Your task to perform on an android device: open app "Microsoft Excel" Image 0: 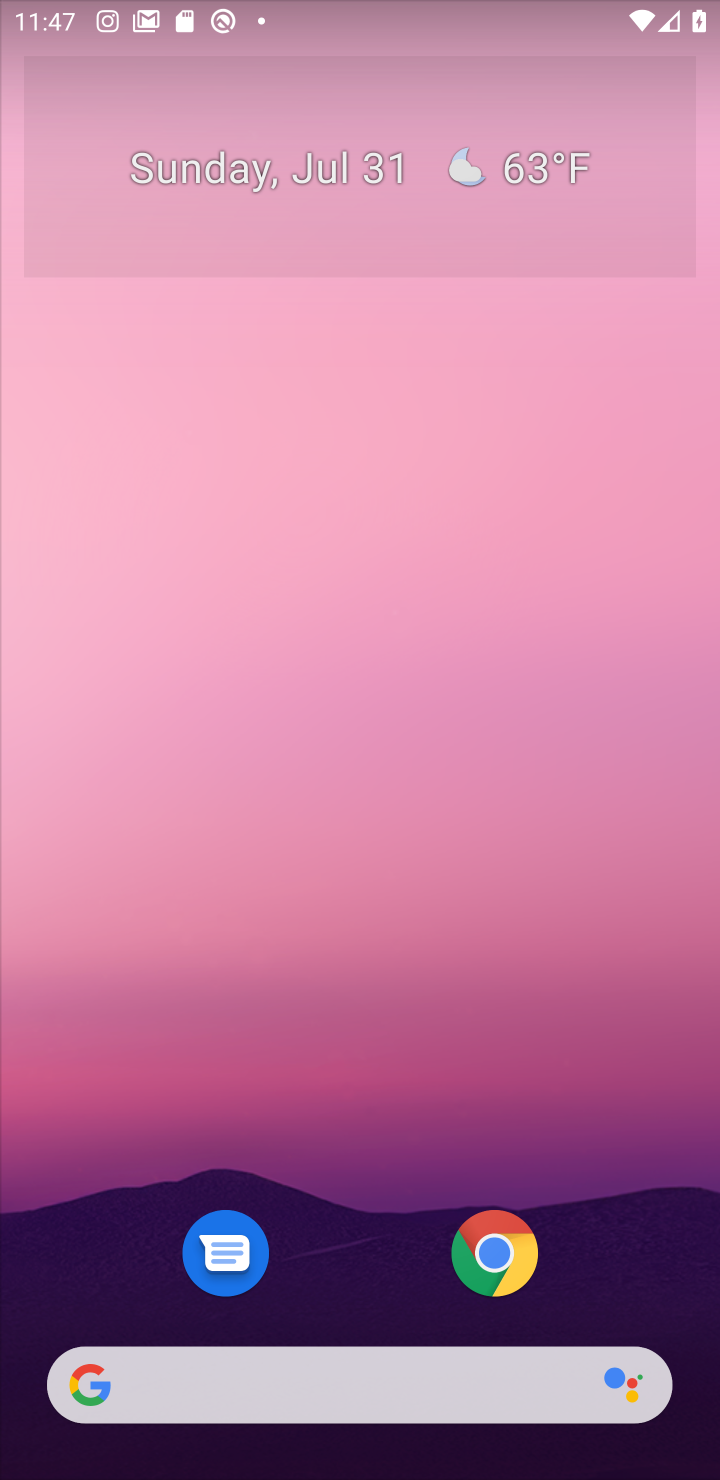
Step 0: drag from (370, 1274) to (444, 252)
Your task to perform on an android device: open app "Microsoft Excel" Image 1: 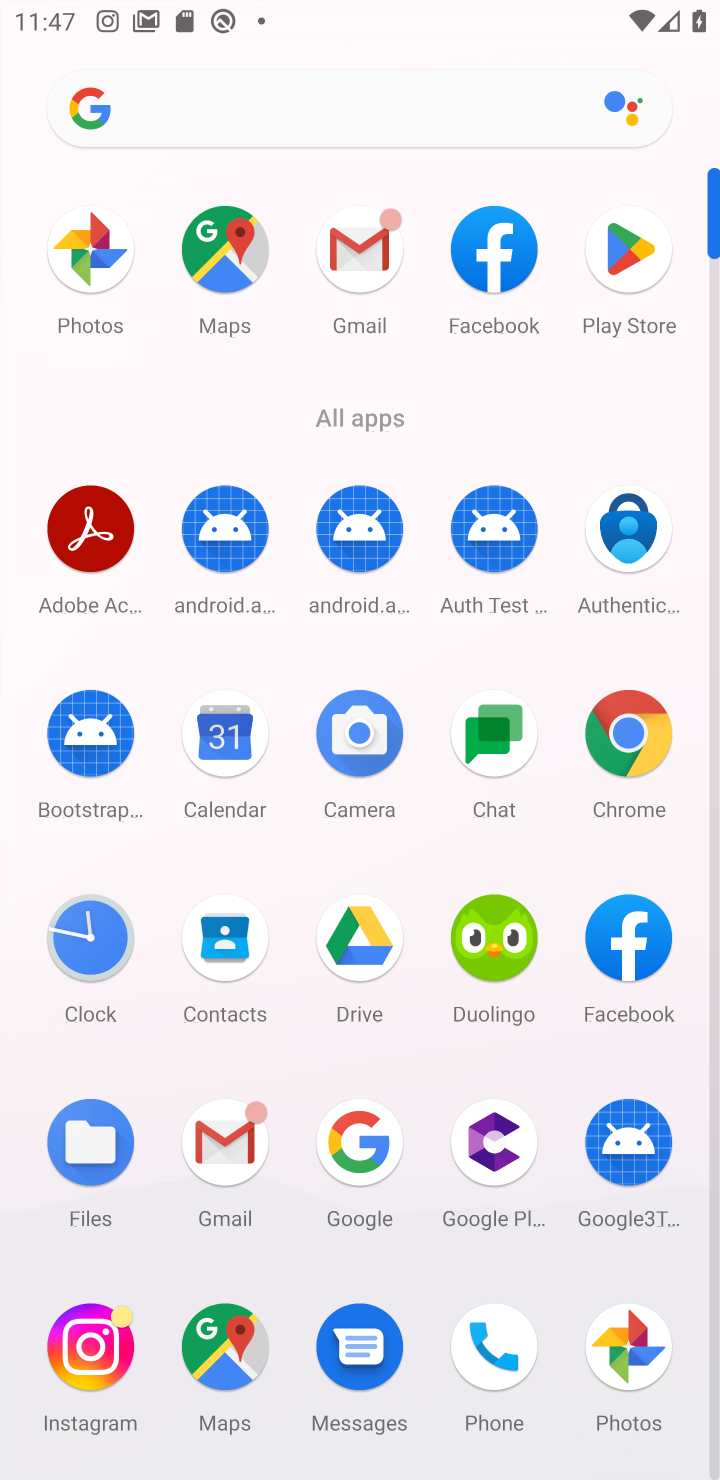
Step 1: click (633, 238)
Your task to perform on an android device: open app "Microsoft Excel" Image 2: 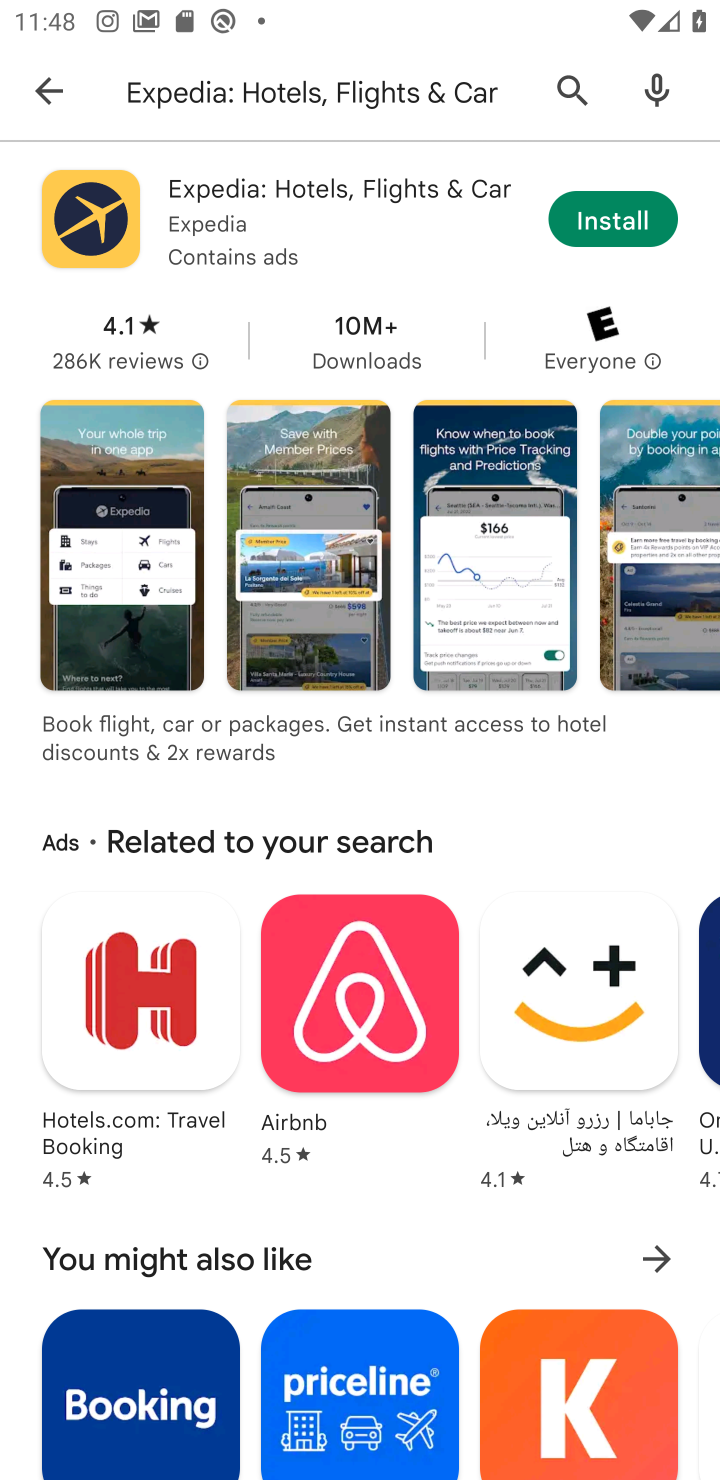
Step 2: click (424, 101)
Your task to perform on an android device: open app "Microsoft Excel" Image 3: 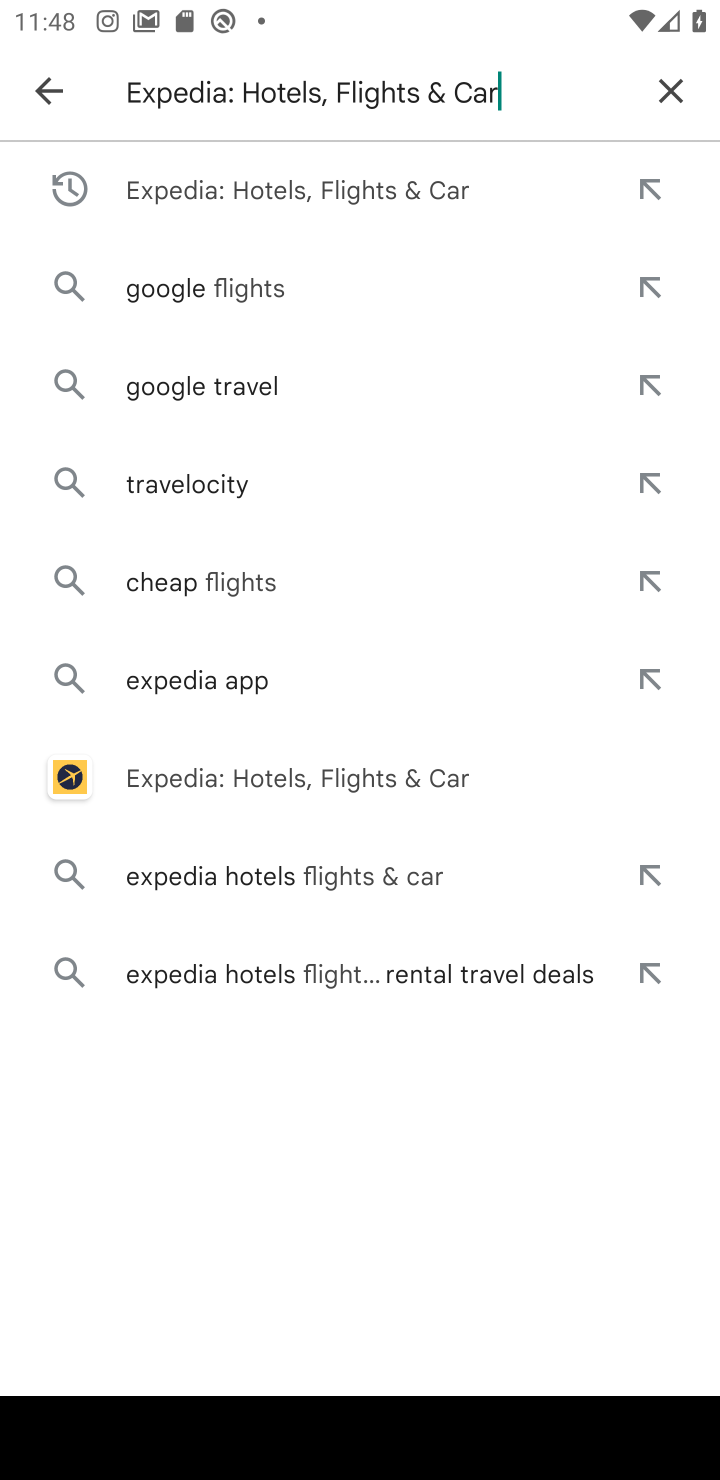
Step 3: click (679, 80)
Your task to perform on an android device: open app "Microsoft Excel" Image 4: 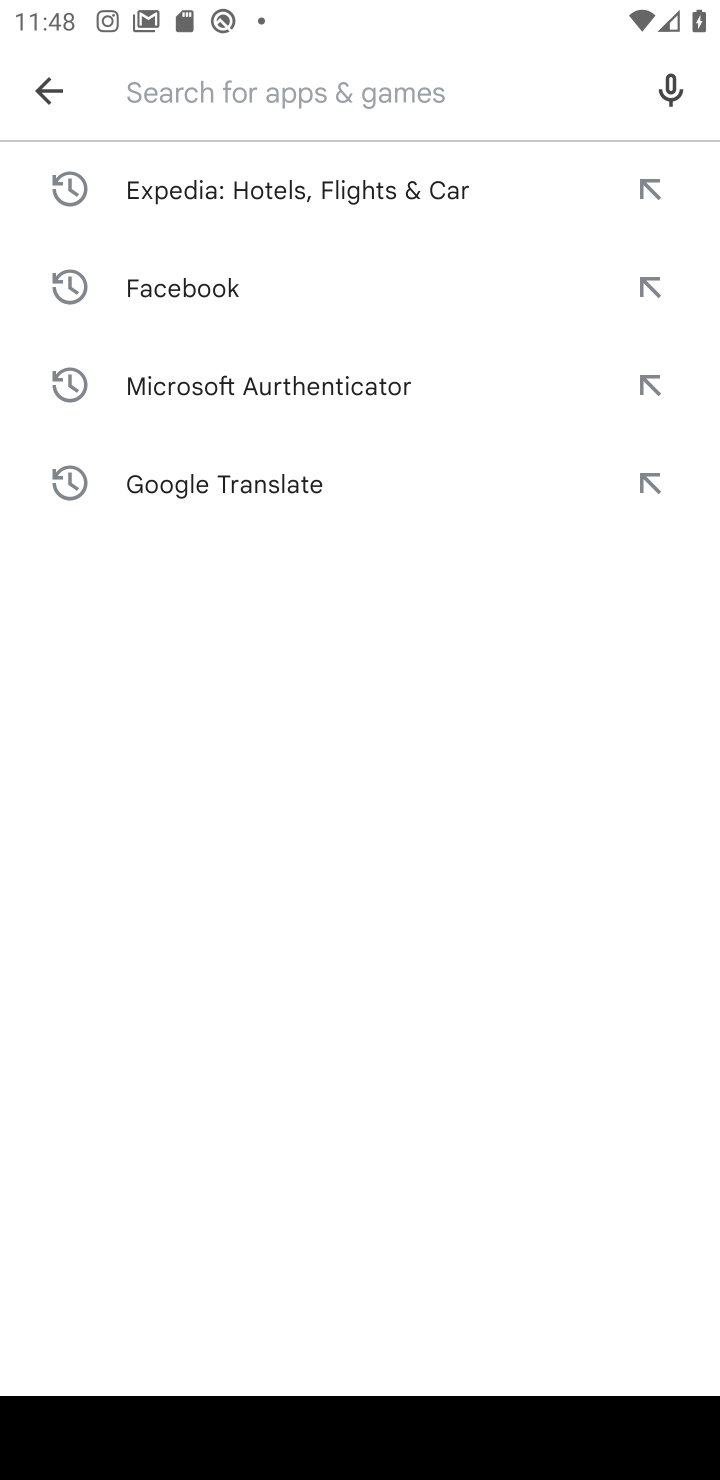
Step 4: type "Microsoft Excel"
Your task to perform on an android device: open app "Microsoft Excel" Image 5: 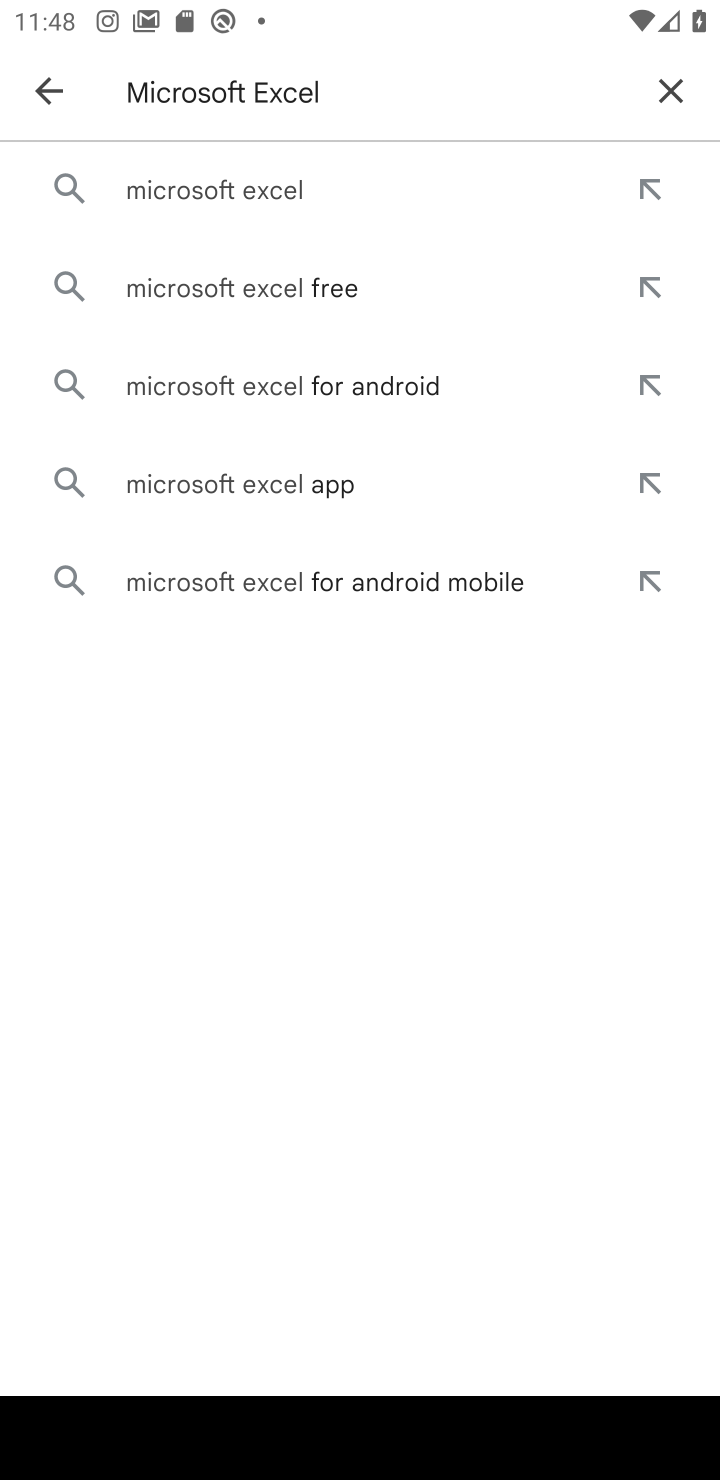
Step 5: press enter
Your task to perform on an android device: open app "Microsoft Excel" Image 6: 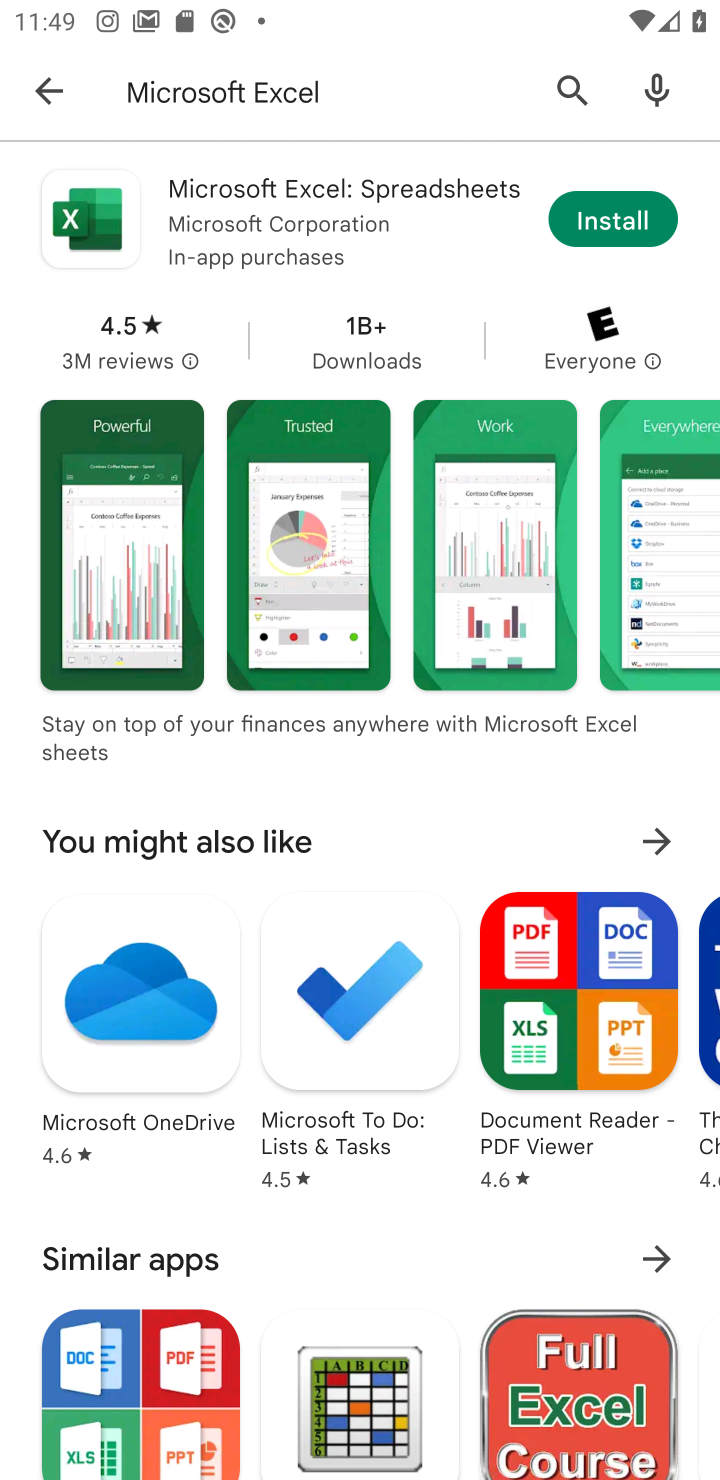
Step 6: task complete